Your task to perform on an android device: Go to network settings Image 0: 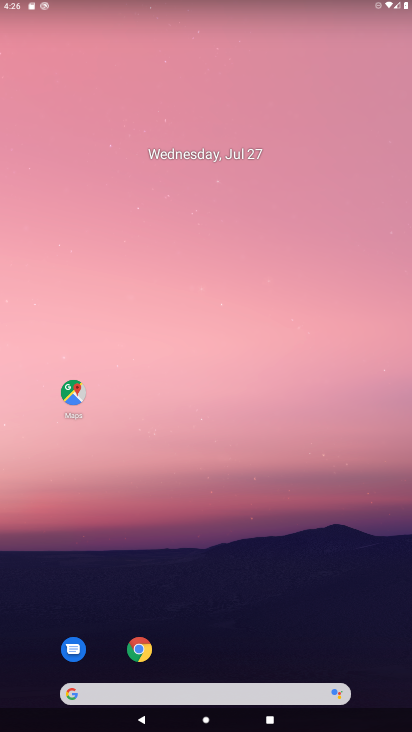
Step 0: drag from (253, 636) to (174, 105)
Your task to perform on an android device: Go to network settings Image 1: 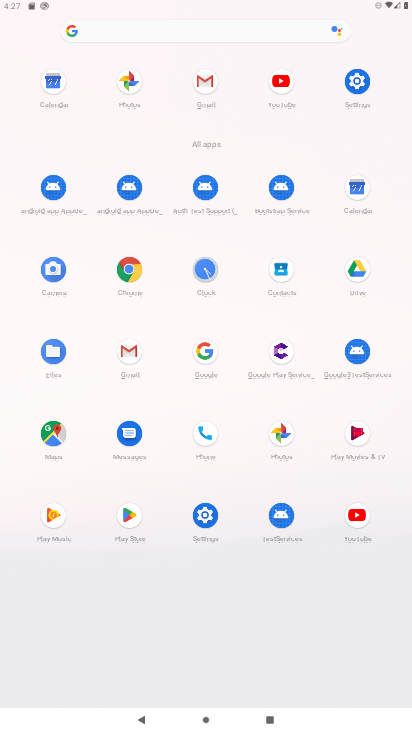
Step 1: click (208, 519)
Your task to perform on an android device: Go to network settings Image 2: 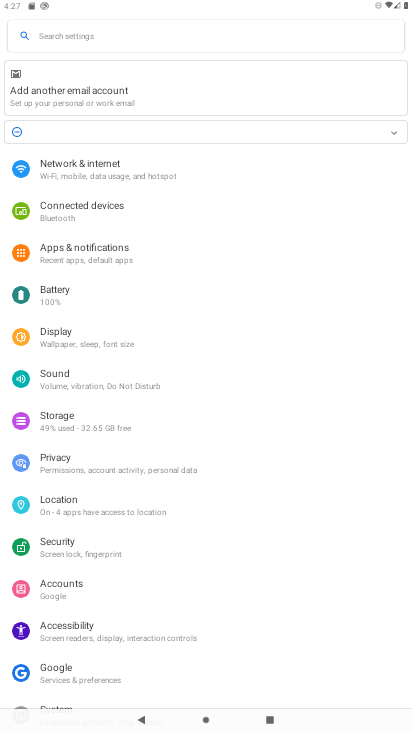
Step 2: click (101, 171)
Your task to perform on an android device: Go to network settings Image 3: 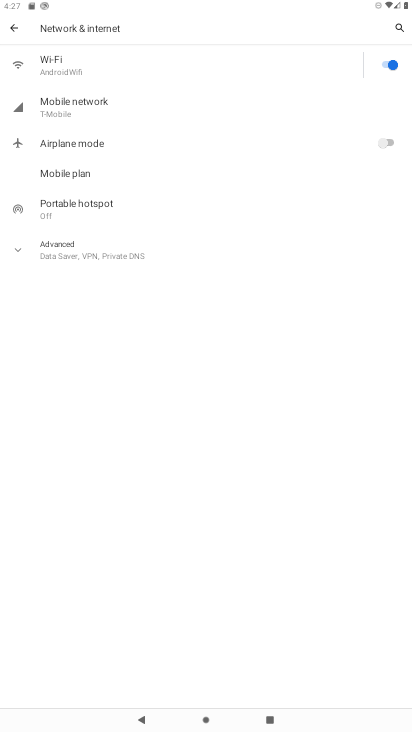
Step 3: task complete